Your task to perform on an android device: Open calendar and show me the first week of next month Image 0: 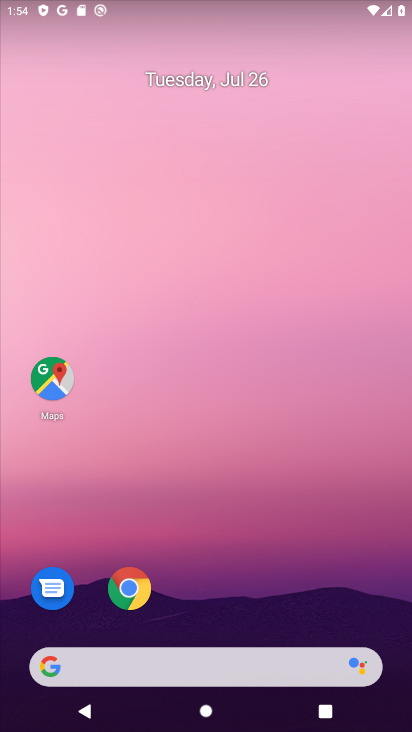
Step 0: drag from (218, 522) to (156, 38)
Your task to perform on an android device: Open calendar and show me the first week of next month Image 1: 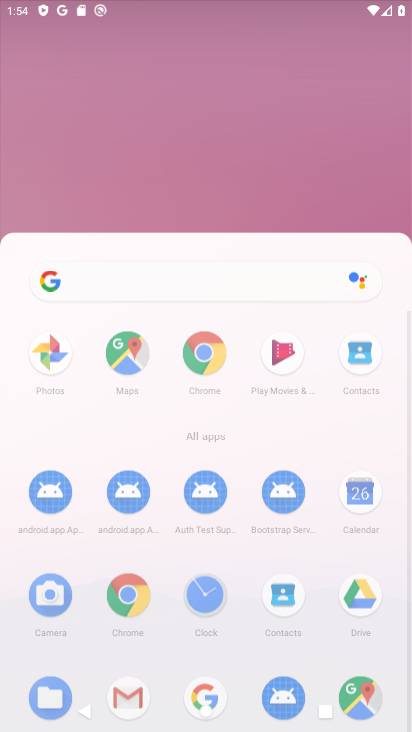
Step 1: drag from (159, 442) to (83, 153)
Your task to perform on an android device: Open calendar and show me the first week of next month Image 2: 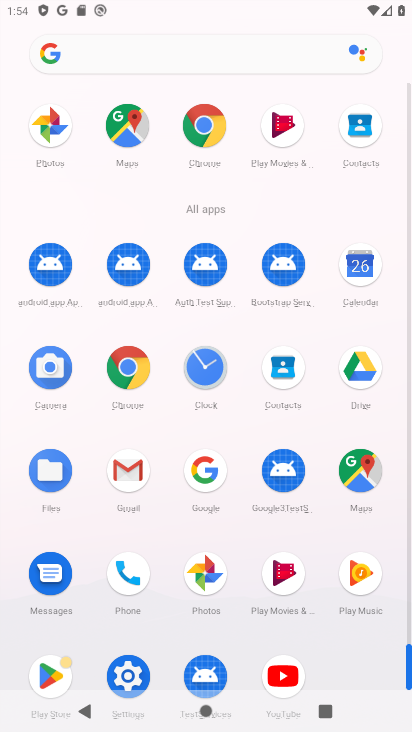
Step 2: click (362, 267)
Your task to perform on an android device: Open calendar and show me the first week of next month Image 3: 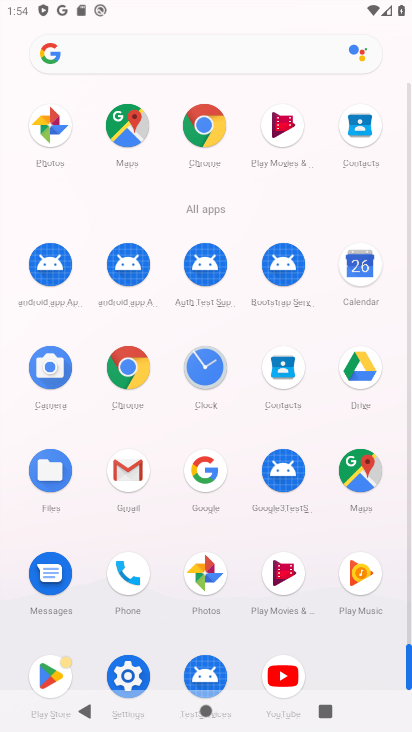
Step 3: click (362, 267)
Your task to perform on an android device: Open calendar and show me the first week of next month Image 4: 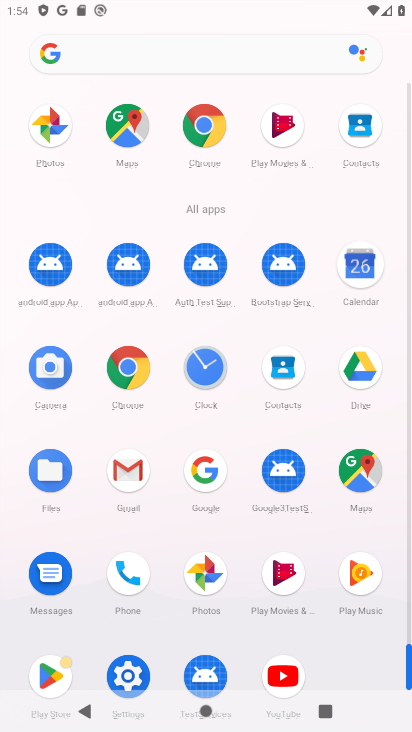
Step 4: click (362, 267)
Your task to perform on an android device: Open calendar and show me the first week of next month Image 5: 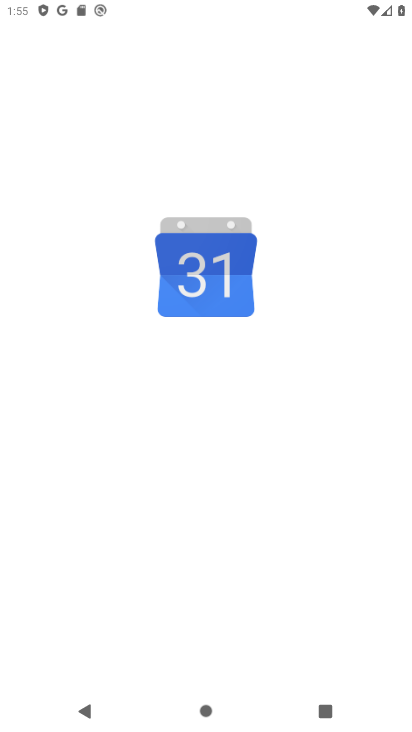
Step 5: click (363, 267)
Your task to perform on an android device: Open calendar and show me the first week of next month Image 6: 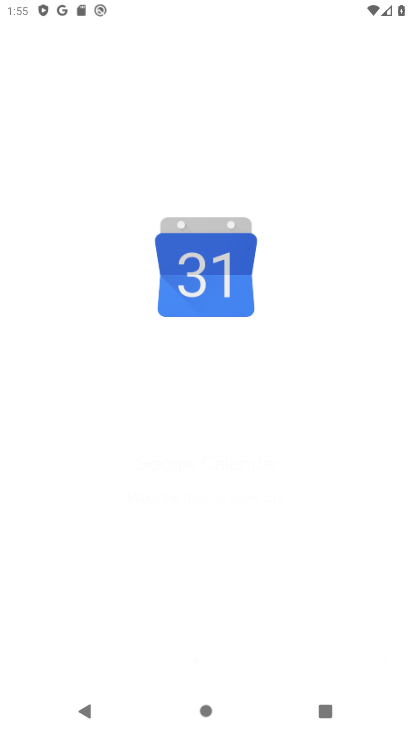
Step 6: click (363, 267)
Your task to perform on an android device: Open calendar and show me the first week of next month Image 7: 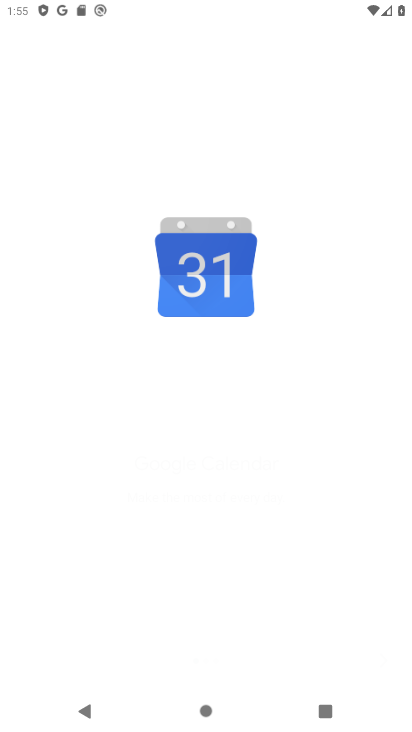
Step 7: click (363, 267)
Your task to perform on an android device: Open calendar and show me the first week of next month Image 8: 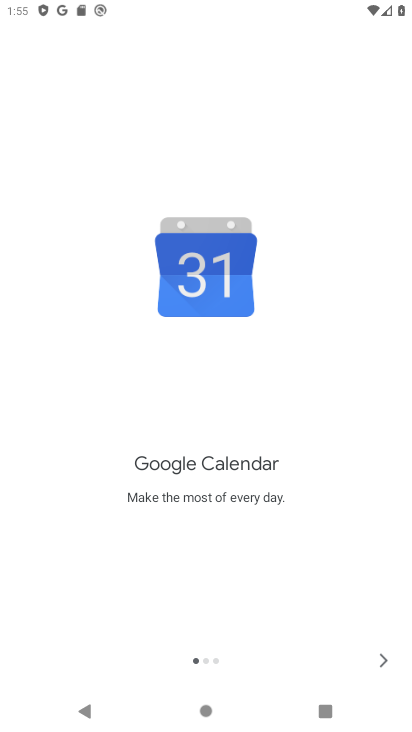
Step 8: click (363, 267)
Your task to perform on an android device: Open calendar and show me the first week of next month Image 9: 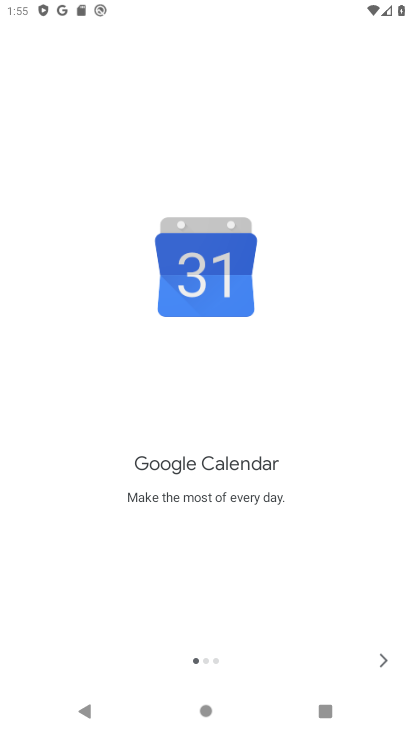
Step 9: click (380, 658)
Your task to perform on an android device: Open calendar and show me the first week of next month Image 10: 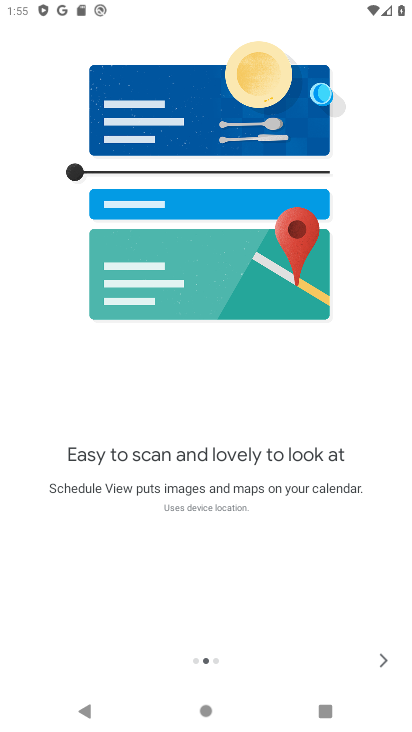
Step 10: click (386, 659)
Your task to perform on an android device: Open calendar and show me the first week of next month Image 11: 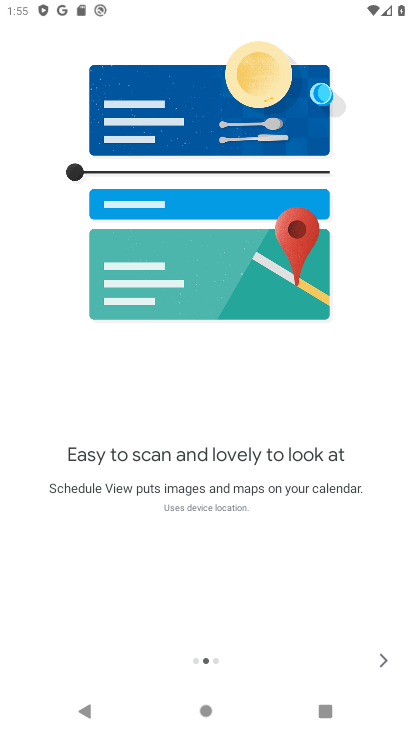
Step 11: click (389, 661)
Your task to perform on an android device: Open calendar and show me the first week of next month Image 12: 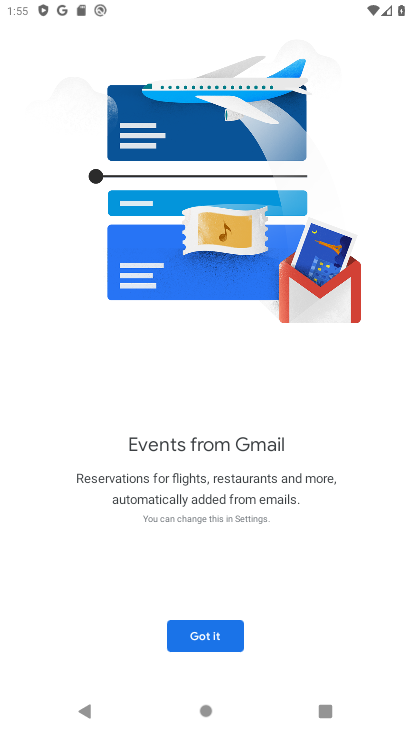
Step 12: click (218, 635)
Your task to perform on an android device: Open calendar and show me the first week of next month Image 13: 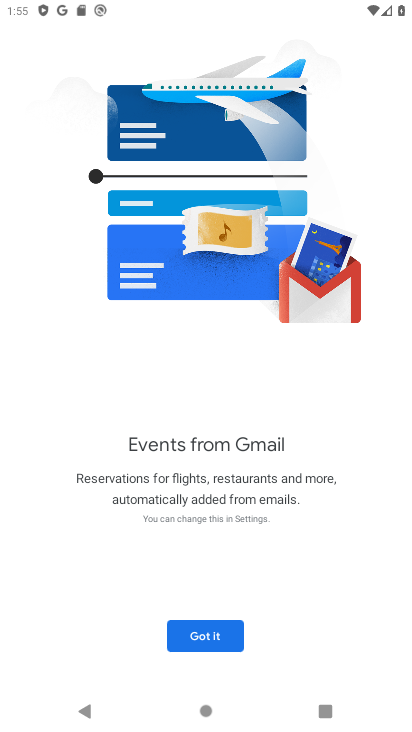
Step 13: click (218, 634)
Your task to perform on an android device: Open calendar and show me the first week of next month Image 14: 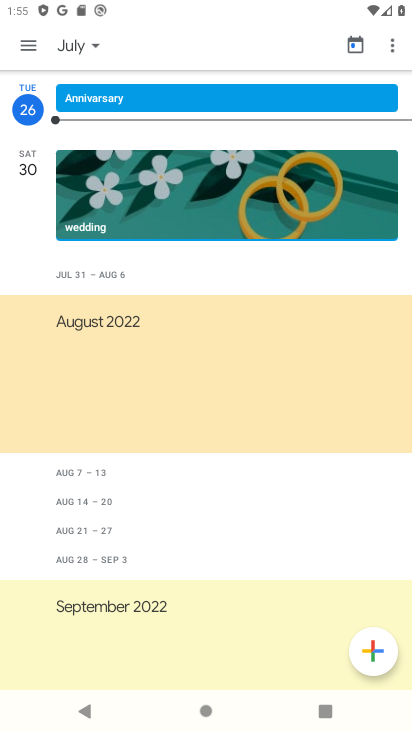
Step 14: drag from (98, 124) to (127, 433)
Your task to perform on an android device: Open calendar and show me the first week of next month Image 15: 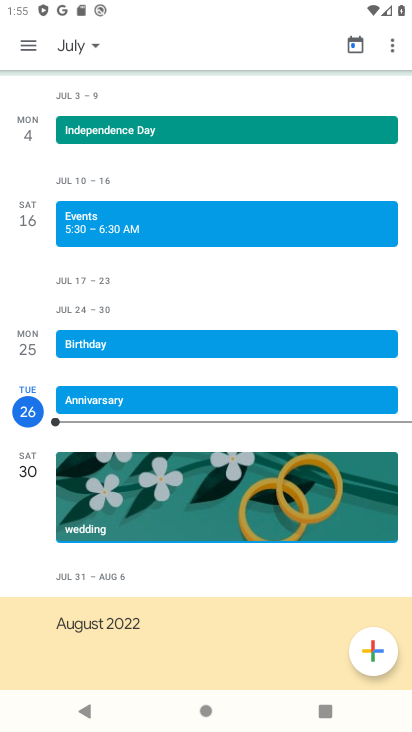
Step 15: drag from (129, 176) to (136, 382)
Your task to perform on an android device: Open calendar and show me the first week of next month Image 16: 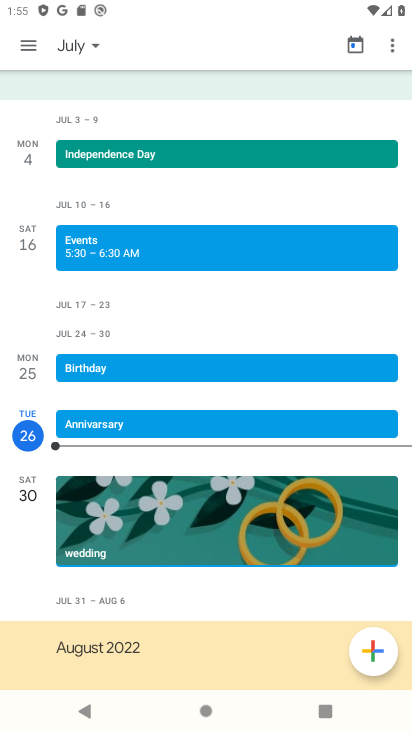
Step 16: drag from (148, 166) to (148, 434)
Your task to perform on an android device: Open calendar and show me the first week of next month Image 17: 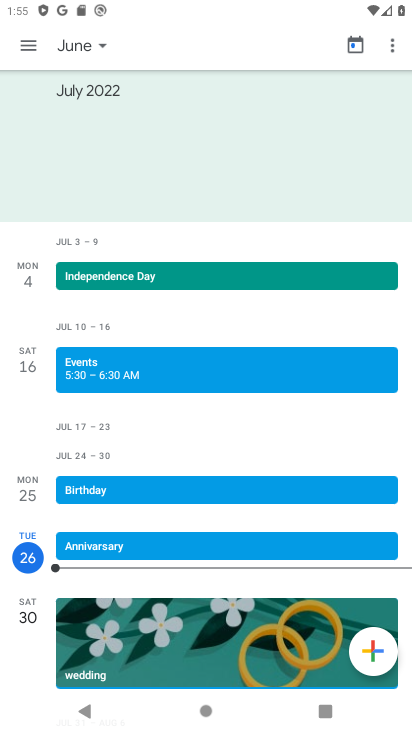
Step 17: click (93, 42)
Your task to perform on an android device: Open calendar and show me the first week of next month Image 18: 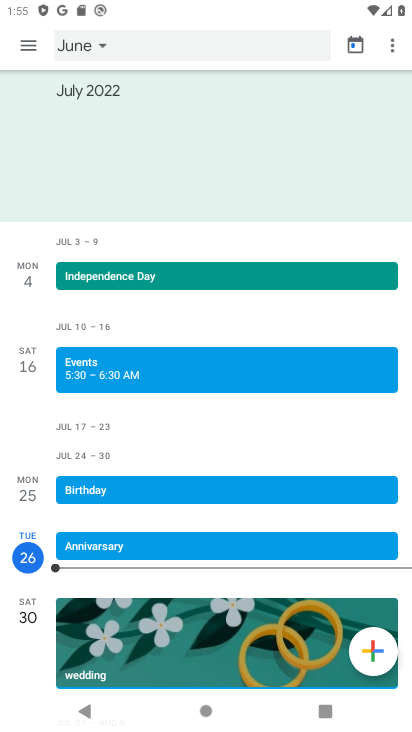
Step 18: click (96, 43)
Your task to perform on an android device: Open calendar and show me the first week of next month Image 19: 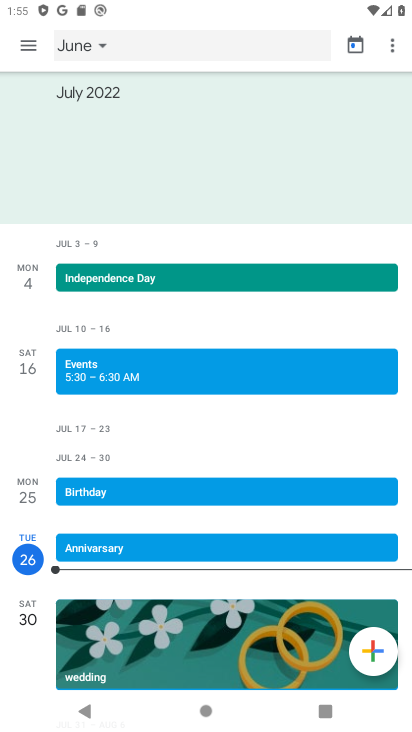
Step 19: click (97, 44)
Your task to perform on an android device: Open calendar and show me the first week of next month Image 20: 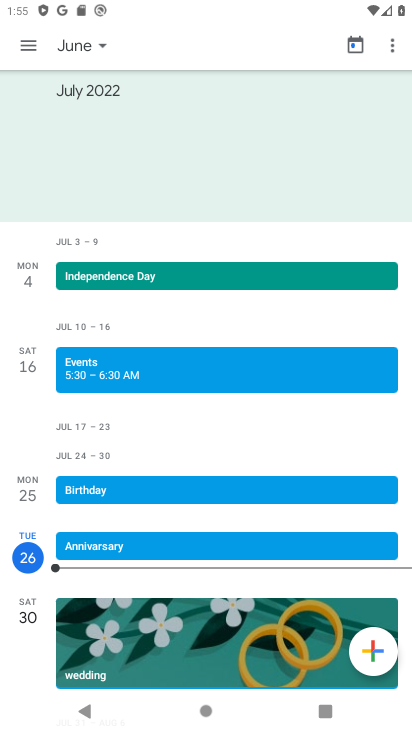
Step 20: click (105, 46)
Your task to perform on an android device: Open calendar and show me the first week of next month Image 21: 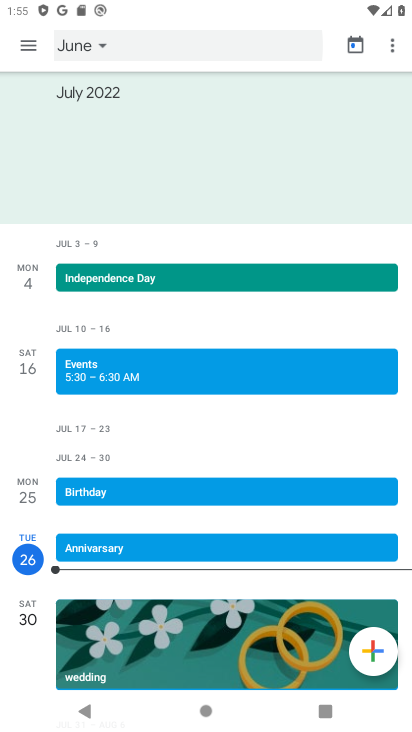
Step 21: click (106, 44)
Your task to perform on an android device: Open calendar and show me the first week of next month Image 22: 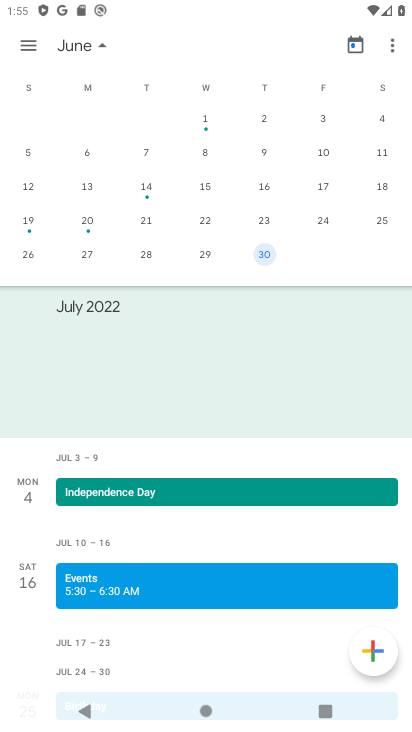
Step 22: click (106, 44)
Your task to perform on an android device: Open calendar and show me the first week of next month Image 23: 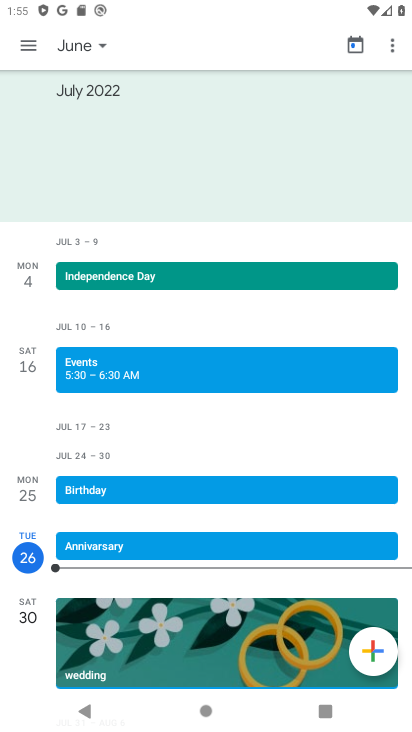
Step 23: click (104, 36)
Your task to perform on an android device: Open calendar and show me the first week of next month Image 24: 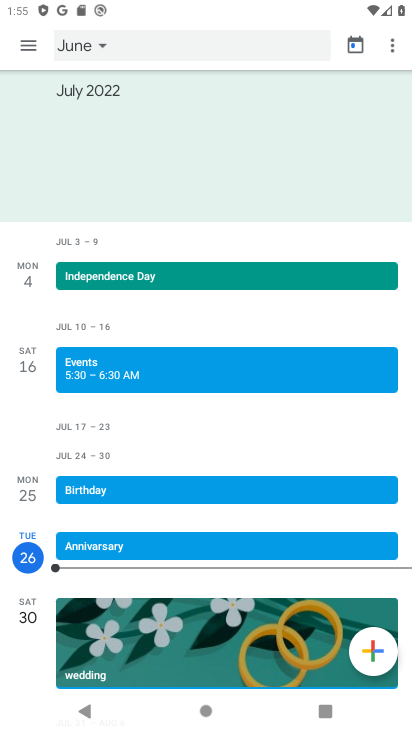
Step 24: click (97, 33)
Your task to perform on an android device: Open calendar and show me the first week of next month Image 25: 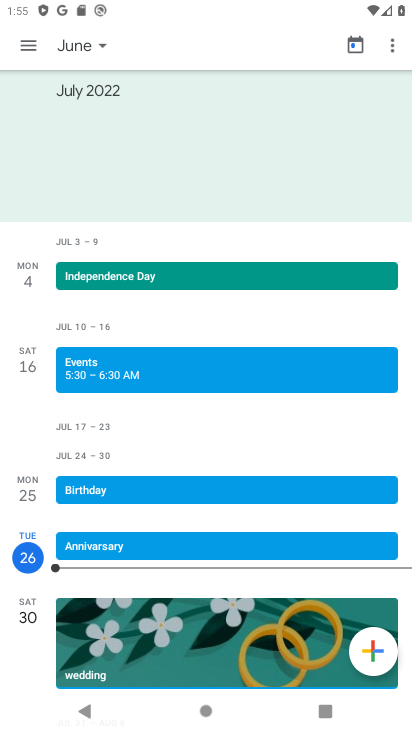
Step 25: click (95, 37)
Your task to perform on an android device: Open calendar and show me the first week of next month Image 26: 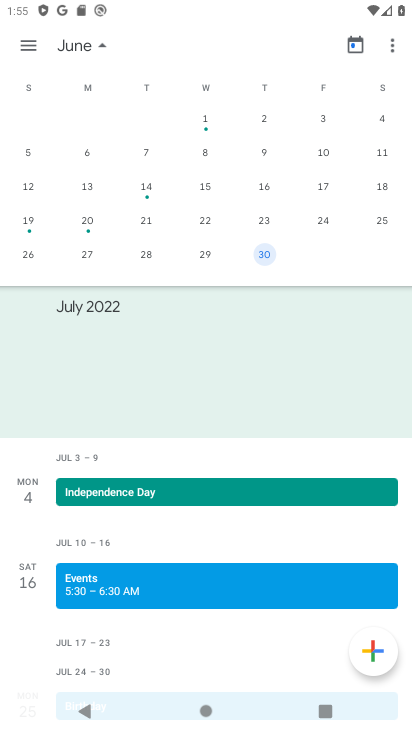
Step 26: task complete